Your task to perform on an android device: check the backup settings in the google photos Image 0: 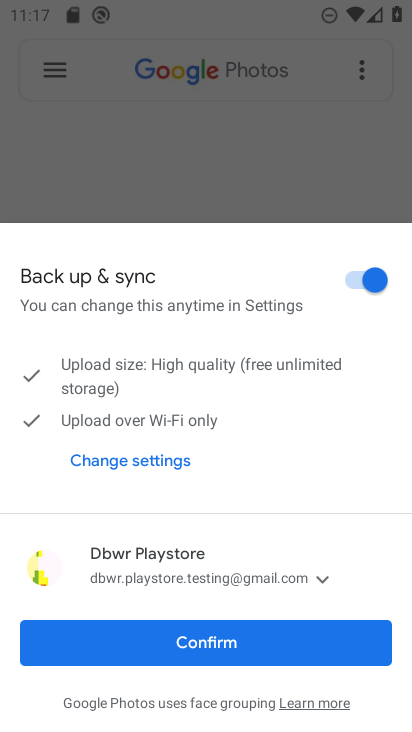
Step 0: click (144, 636)
Your task to perform on an android device: check the backup settings in the google photos Image 1: 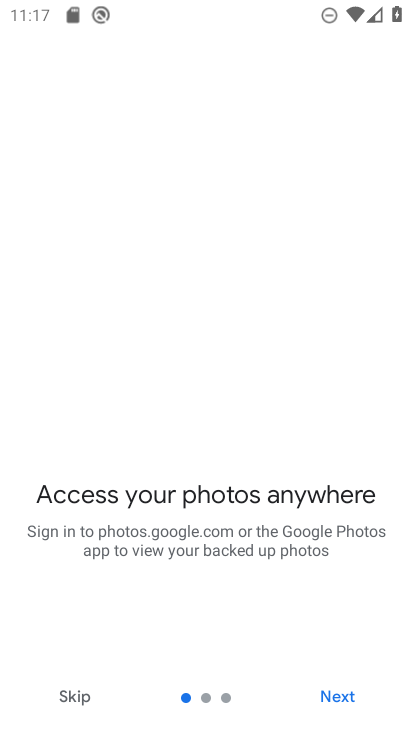
Step 1: click (333, 698)
Your task to perform on an android device: check the backup settings in the google photos Image 2: 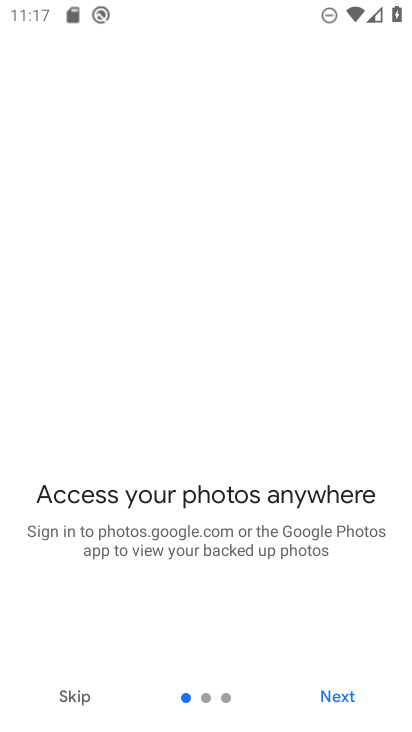
Step 2: click (333, 698)
Your task to perform on an android device: check the backup settings in the google photos Image 3: 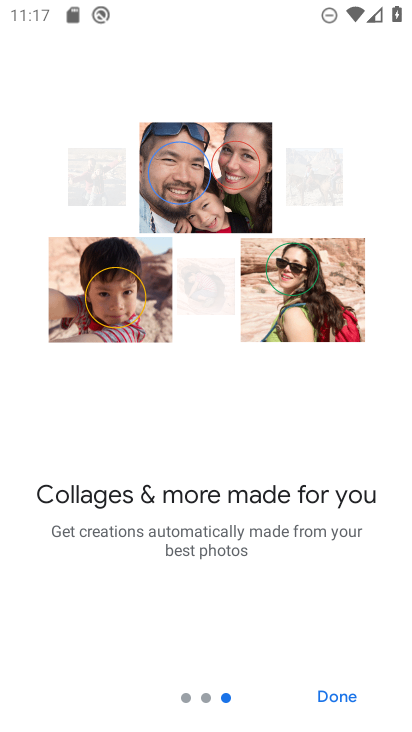
Step 3: click (326, 690)
Your task to perform on an android device: check the backup settings in the google photos Image 4: 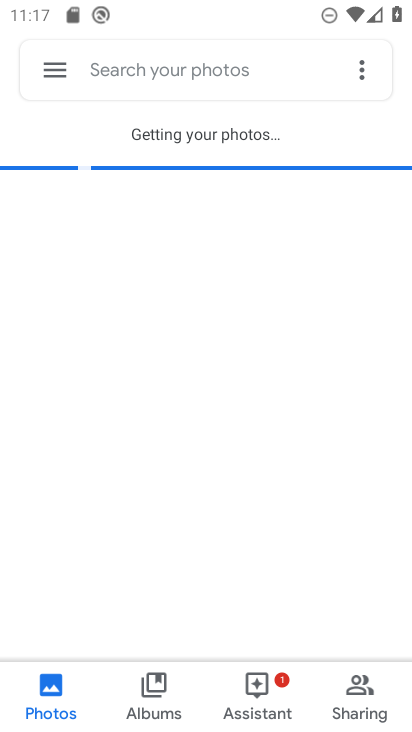
Step 4: click (56, 69)
Your task to perform on an android device: check the backup settings in the google photos Image 5: 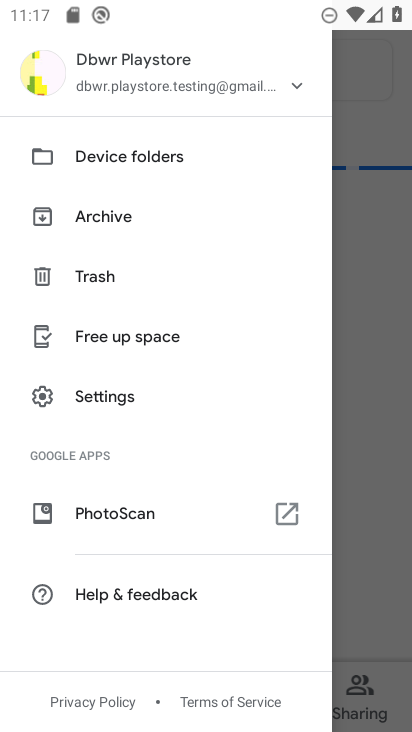
Step 5: click (190, 65)
Your task to perform on an android device: check the backup settings in the google photos Image 6: 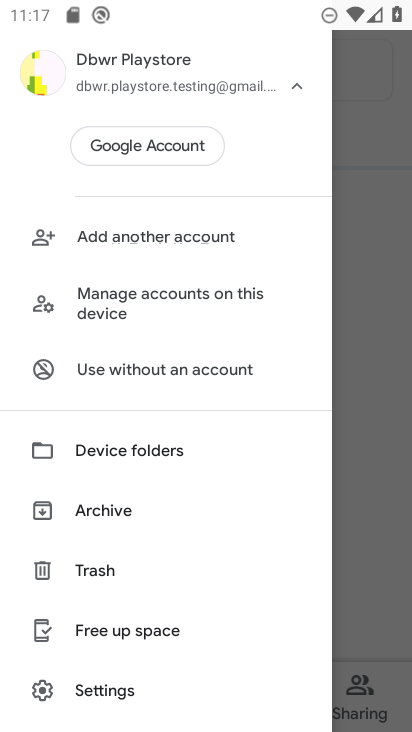
Step 6: click (247, 80)
Your task to perform on an android device: check the backup settings in the google photos Image 7: 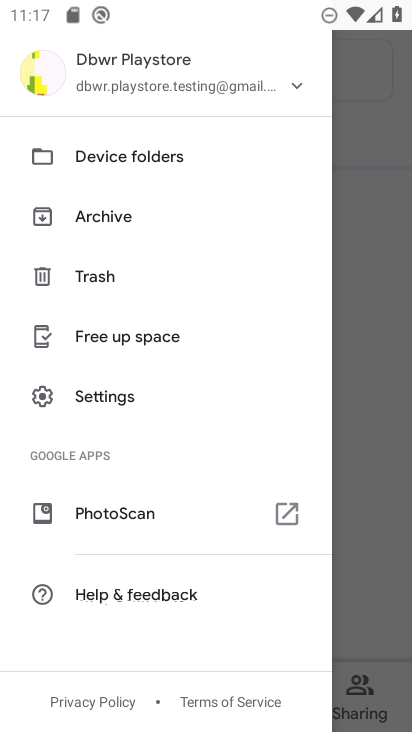
Step 7: click (96, 406)
Your task to perform on an android device: check the backup settings in the google photos Image 8: 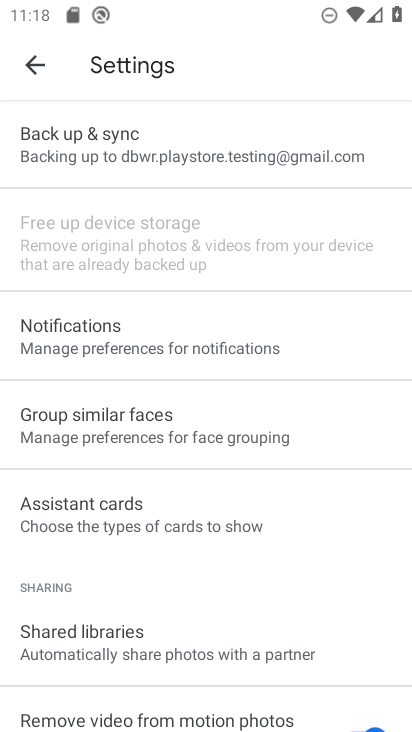
Step 8: click (127, 126)
Your task to perform on an android device: check the backup settings in the google photos Image 9: 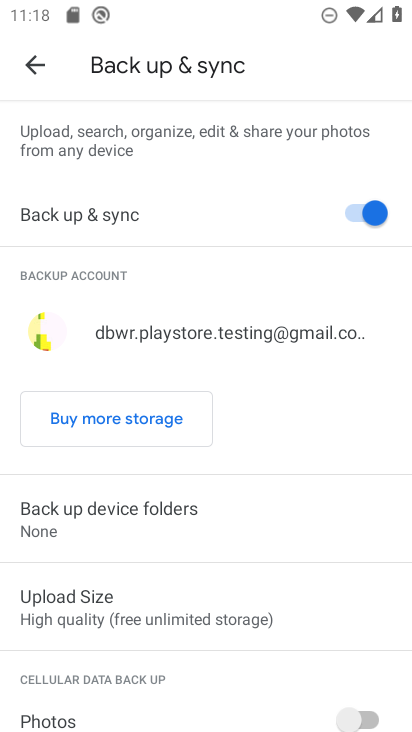
Step 9: task complete